Your task to perform on an android device: Clear the cart on newegg.com. Add usb-a to usb-b to the cart on newegg.com Image 0: 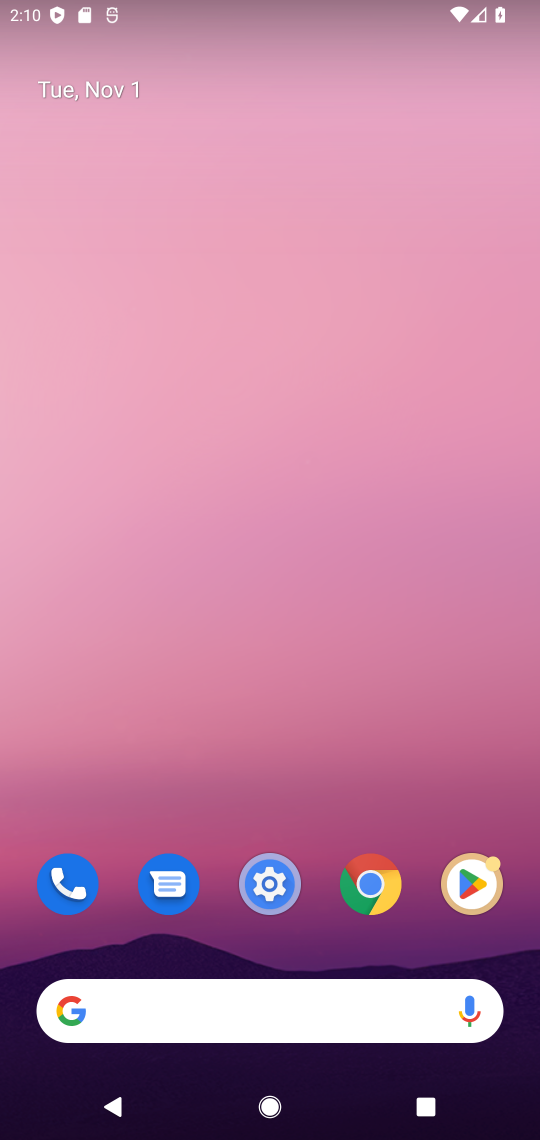
Step 0: press home button
Your task to perform on an android device: Clear the cart on newegg.com. Add usb-a to usb-b to the cart on newegg.com Image 1: 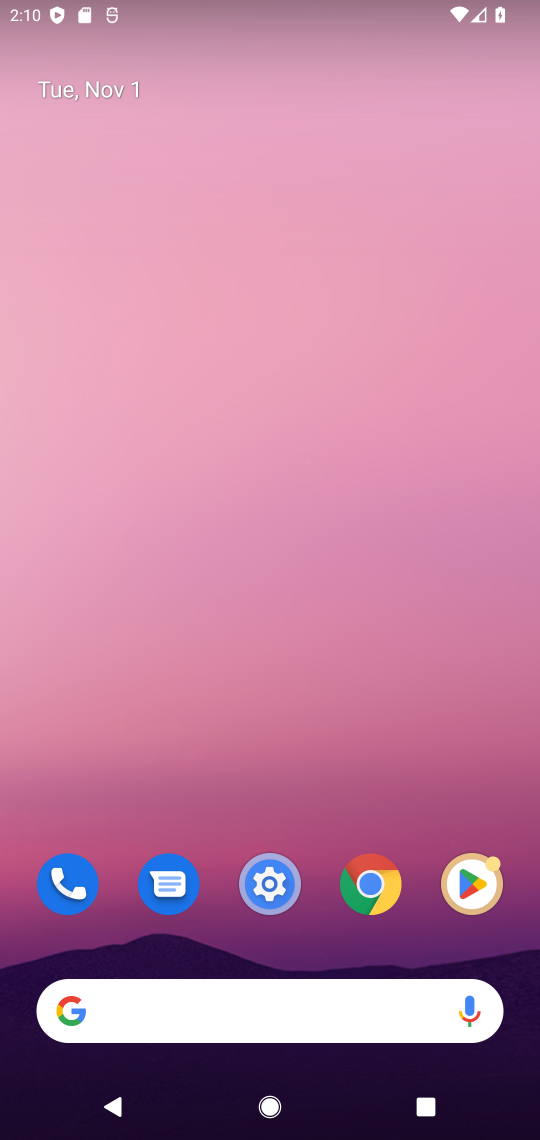
Step 1: click (109, 1009)
Your task to perform on an android device: Clear the cart on newegg.com. Add usb-a to usb-b to the cart on newegg.com Image 2: 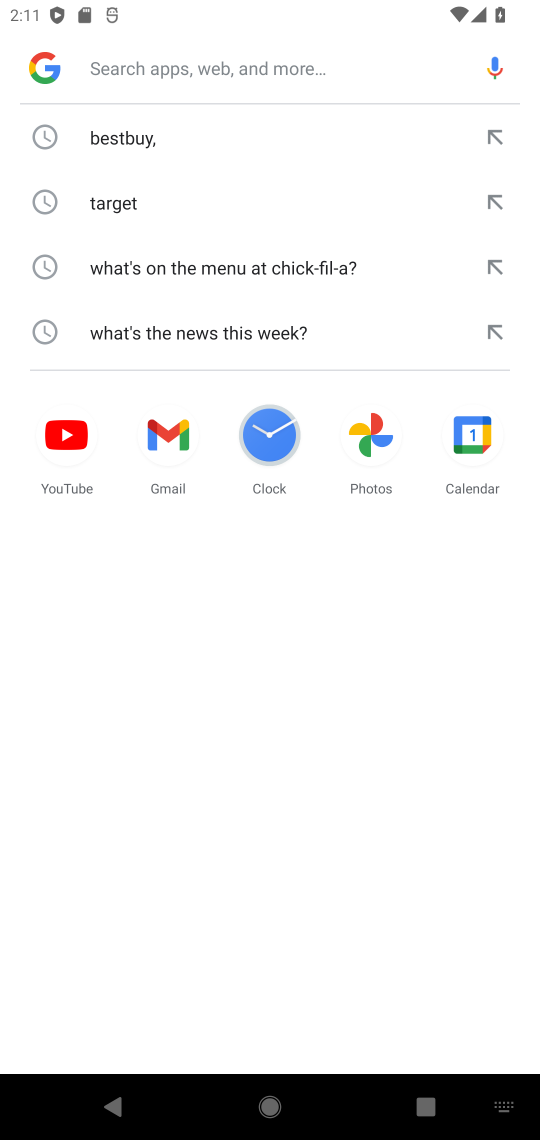
Step 2: type "newegg.com"
Your task to perform on an android device: Clear the cart on newegg.com. Add usb-a to usb-b to the cart on newegg.com Image 3: 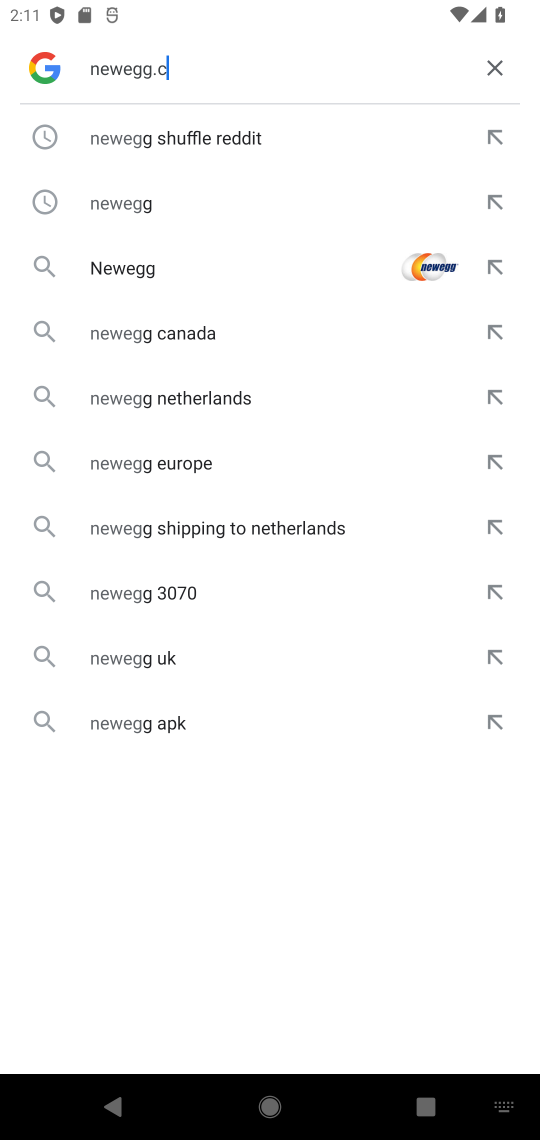
Step 3: press enter
Your task to perform on an android device: Clear the cart on newegg.com. Add usb-a to usb-b to the cart on newegg.com Image 4: 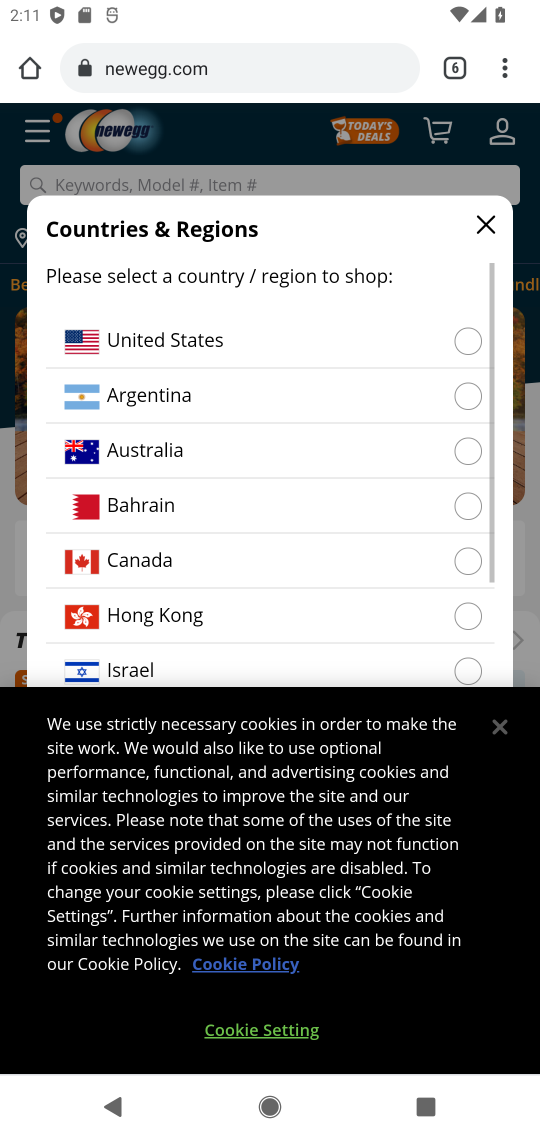
Step 4: click (481, 230)
Your task to perform on an android device: Clear the cart on newegg.com. Add usb-a to usb-b to the cart on newegg.com Image 5: 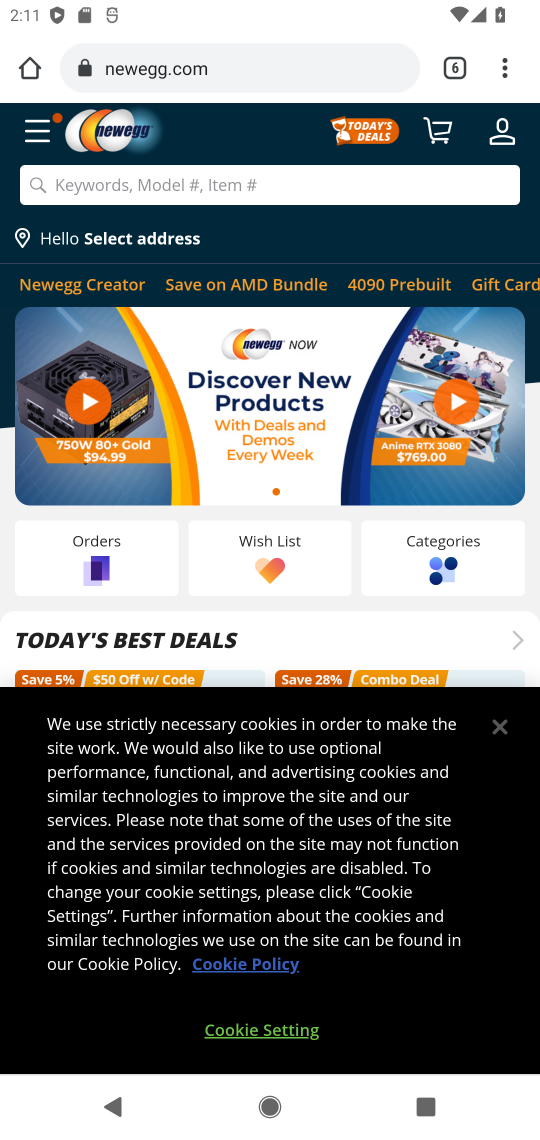
Step 5: click (63, 185)
Your task to perform on an android device: Clear the cart on newegg.com. Add usb-a to usb-b to the cart on newegg.com Image 6: 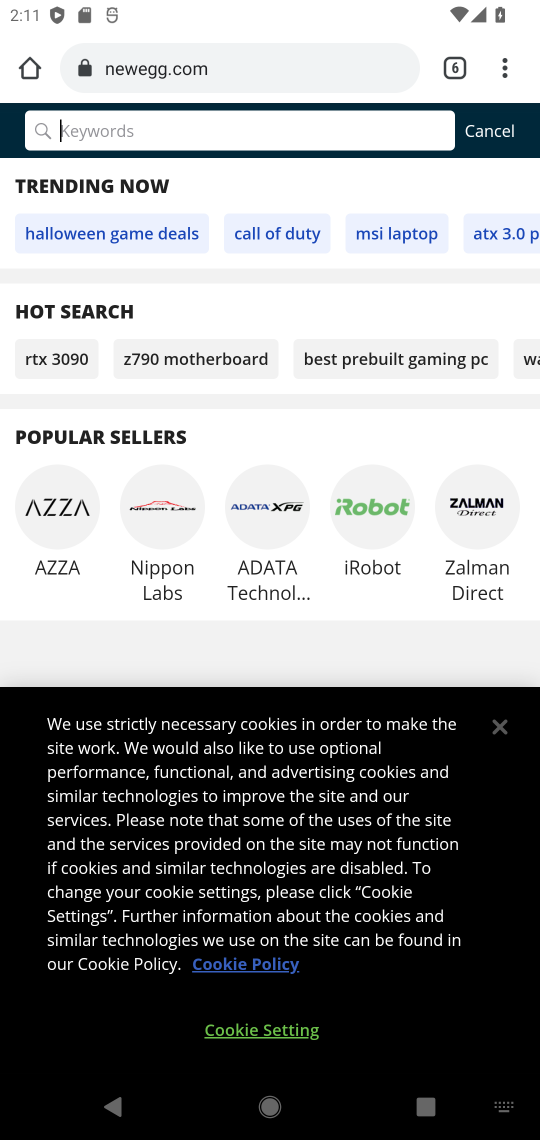
Step 6: type "usb-a to usb-b "
Your task to perform on an android device: Clear the cart on newegg.com. Add usb-a to usb-b to the cart on newegg.com Image 7: 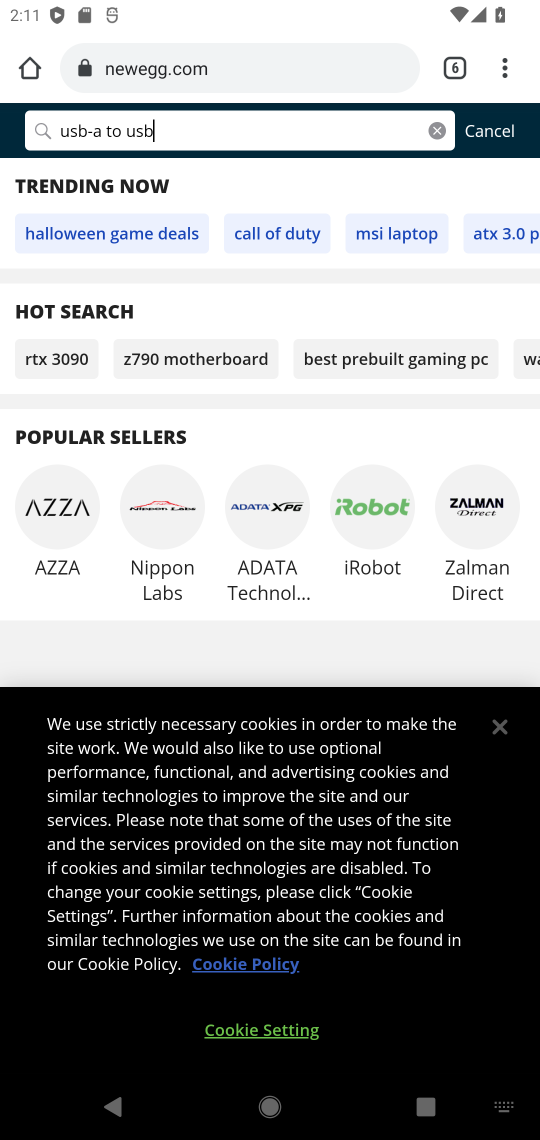
Step 7: press enter
Your task to perform on an android device: Clear the cart on newegg.com. Add usb-a to usb-b to the cart on newegg.com Image 8: 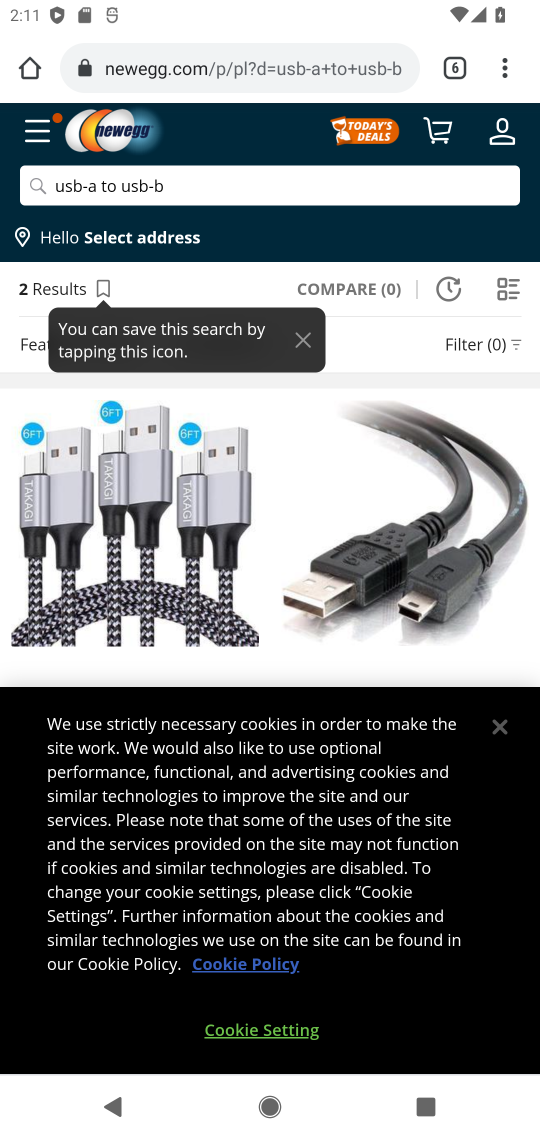
Step 8: click (507, 731)
Your task to perform on an android device: Clear the cart on newegg.com. Add usb-a to usb-b to the cart on newegg.com Image 9: 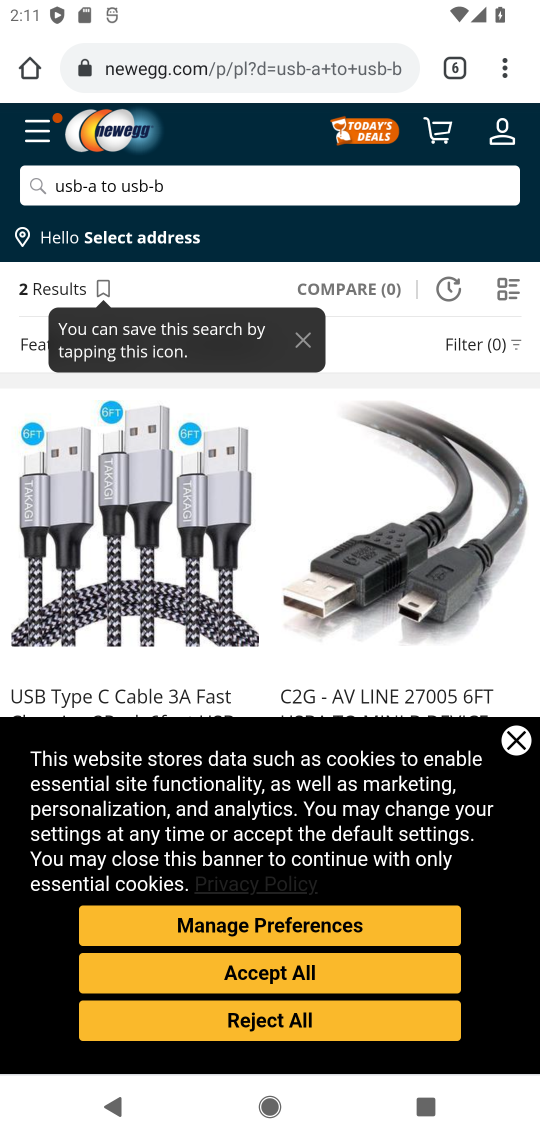
Step 9: click (515, 740)
Your task to perform on an android device: Clear the cart on newegg.com. Add usb-a to usb-b to the cart on newegg.com Image 10: 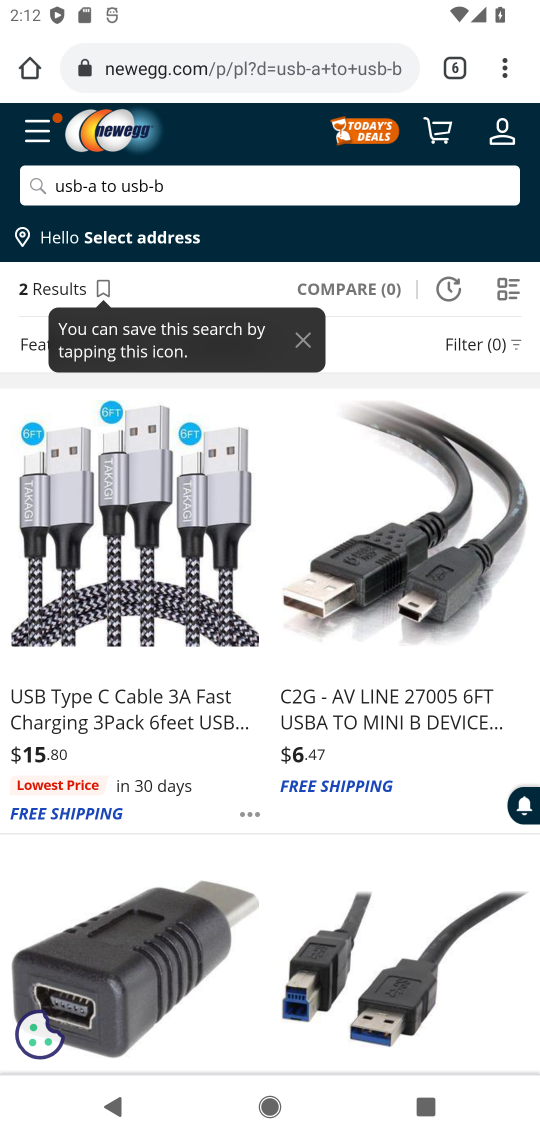
Step 10: drag from (301, 848) to (302, 411)
Your task to perform on an android device: Clear the cart on newegg.com. Add usb-a to usb-b to the cart on newegg.com Image 11: 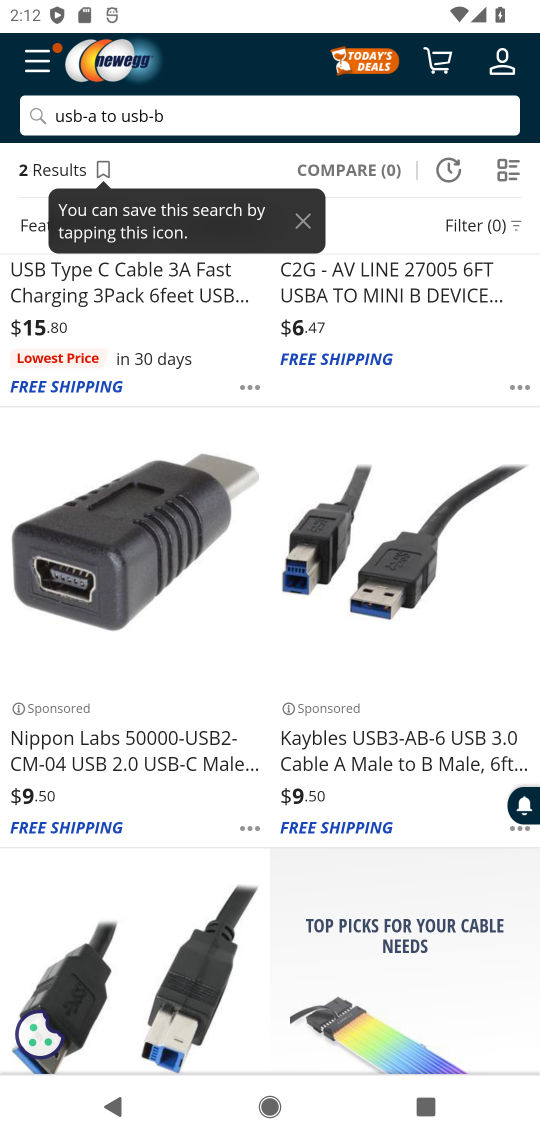
Step 11: click (411, 753)
Your task to perform on an android device: Clear the cart on newegg.com. Add usb-a to usb-b to the cart on newegg.com Image 12: 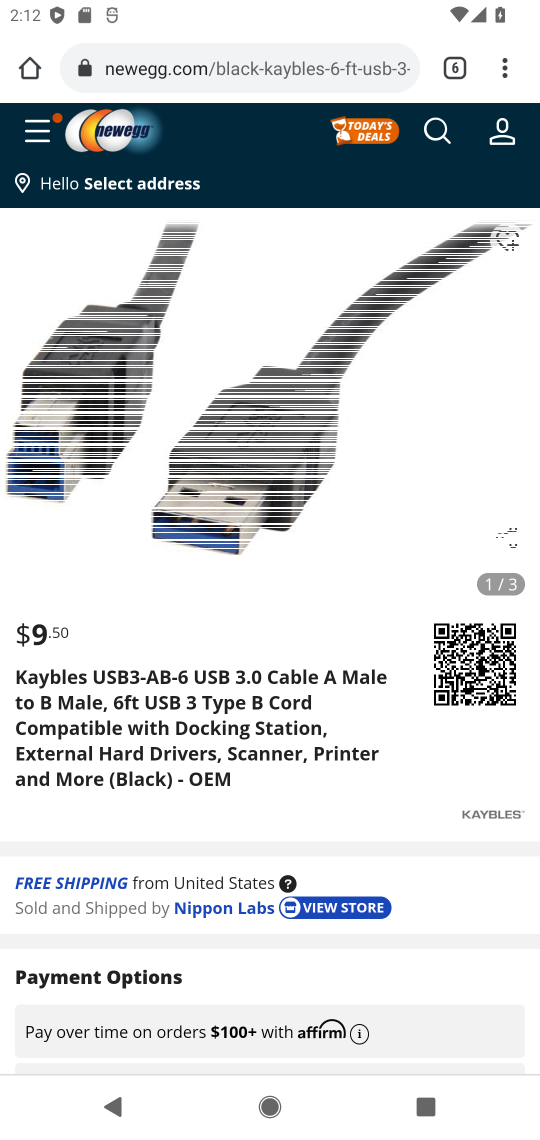
Step 12: drag from (229, 809) to (281, 363)
Your task to perform on an android device: Clear the cart on newegg.com. Add usb-a to usb-b to the cart on newegg.com Image 13: 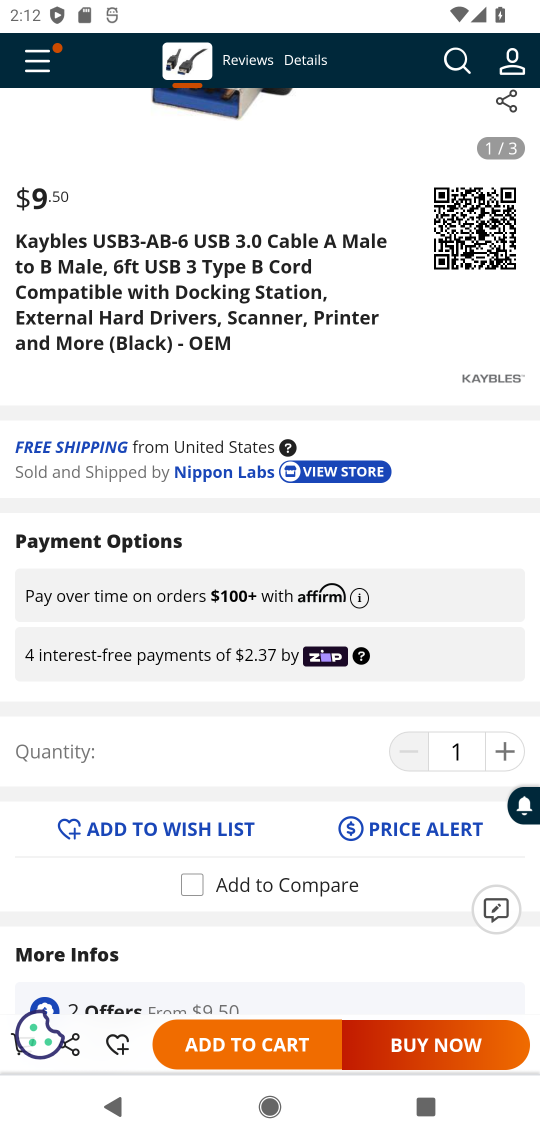
Step 13: click (248, 1040)
Your task to perform on an android device: Clear the cart on newegg.com. Add usb-a to usb-b to the cart on newegg.com Image 14: 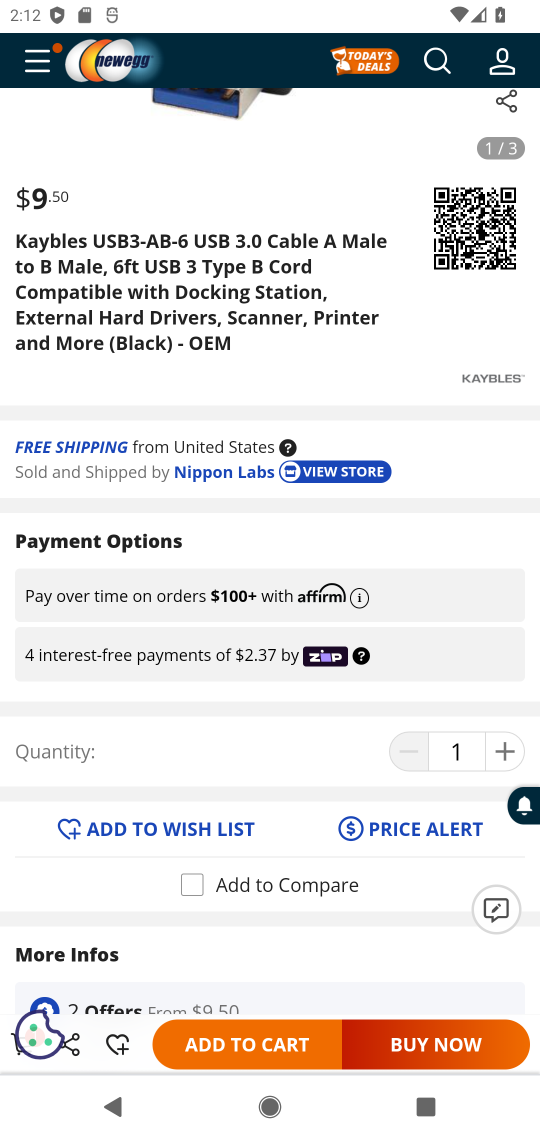
Step 14: task complete